Your task to perform on an android device: Show me popular games on the Play Store Image 0: 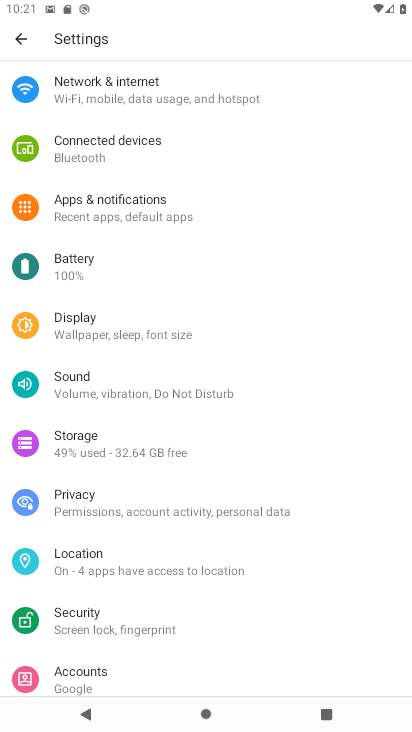
Step 0: press home button
Your task to perform on an android device: Show me popular games on the Play Store Image 1: 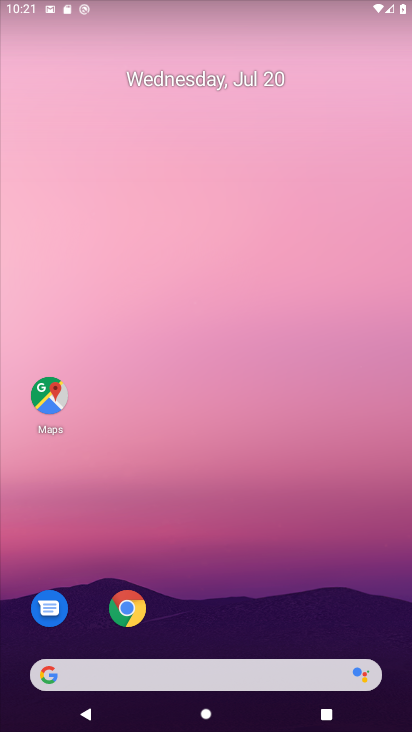
Step 1: drag from (226, 509) to (251, 158)
Your task to perform on an android device: Show me popular games on the Play Store Image 2: 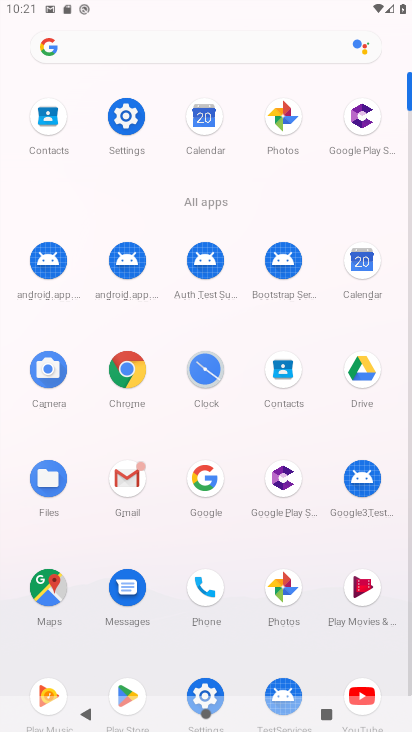
Step 2: click (122, 687)
Your task to perform on an android device: Show me popular games on the Play Store Image 3: 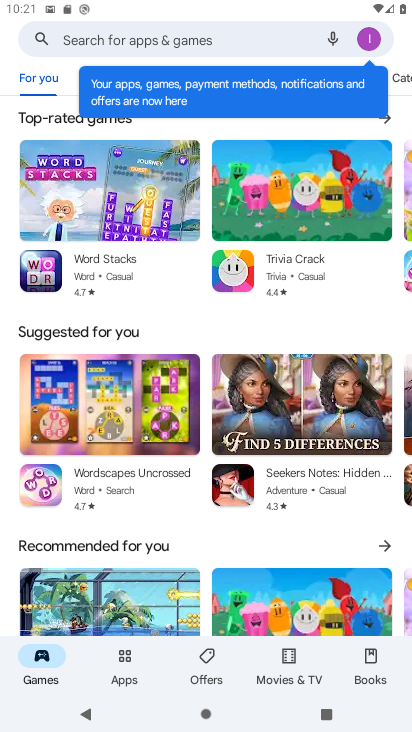
Step 3: task complete